Your task to perform on an android device: What is the recent news? Image 0: 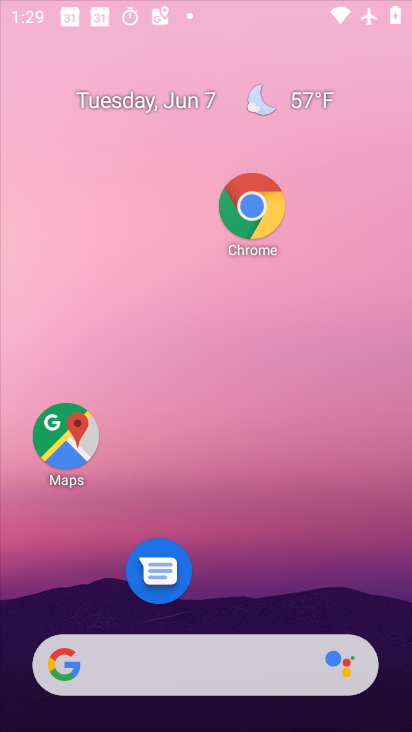
Step 0: click (193, 237)
Your task to perform on an android device: What is the recent news? Image 1: 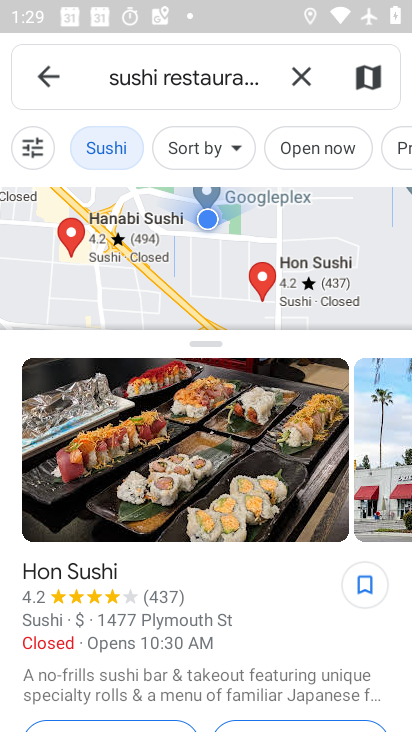
Step 1: click (303, 70)
Your task to perform on an android device: What is the recent news? Image 2: 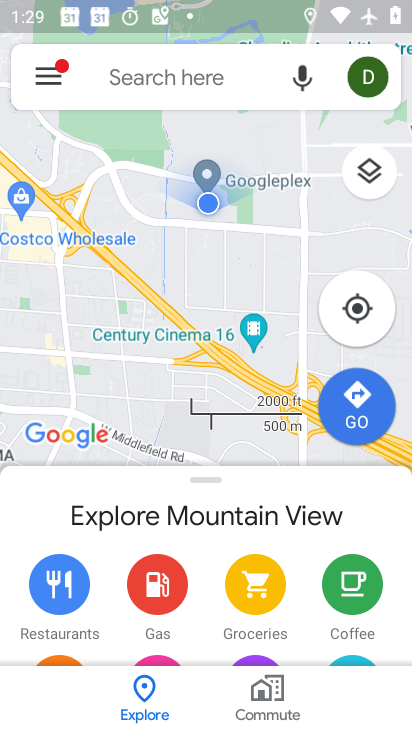
Step 2: click (204, 75)
Your task to perform on an android device: What is the recent news? Image 3: 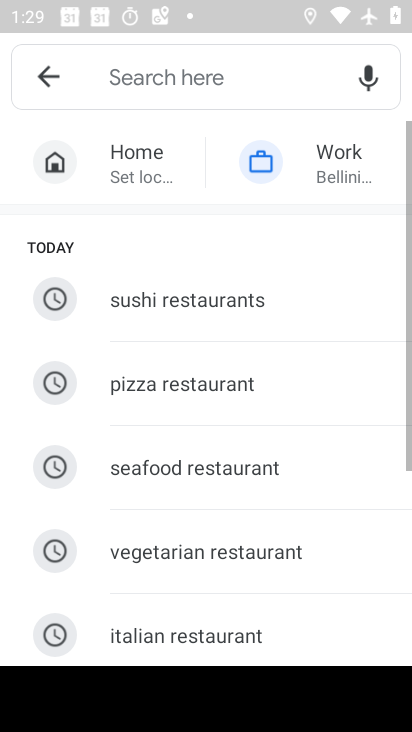
Step 3: drag from (201, 582) to (200, 262)
Your task to perform on an android device: What is the recent news? Image 4: 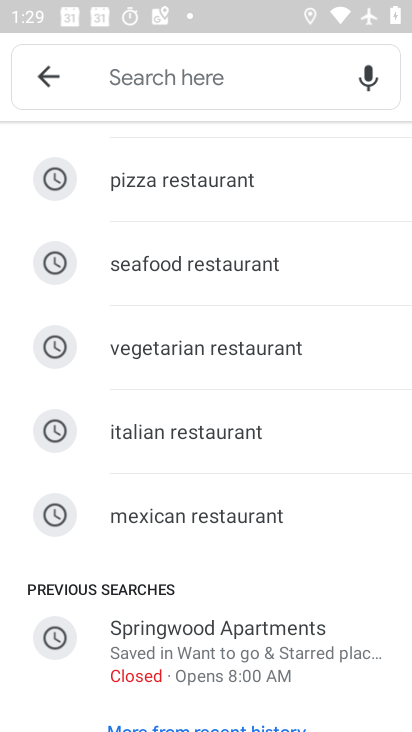
Step 4: drag from (181, 522) to (196, 232)
Your task to perform on an android device: What is the recent news? Image 5: 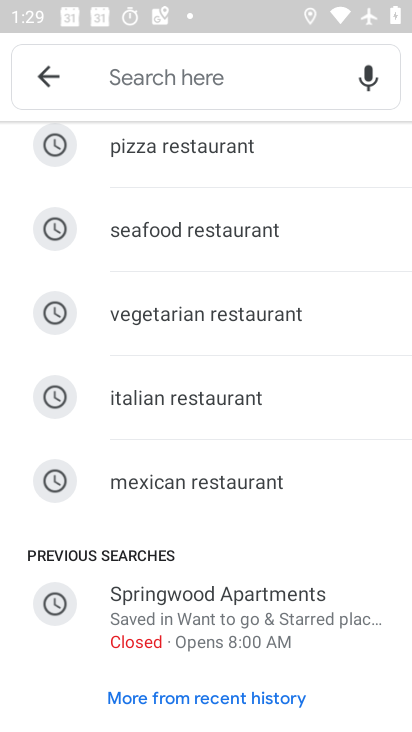
Step 5: click (144, 75)
Your task to perform on an android device: What is the recent news? Image 6: 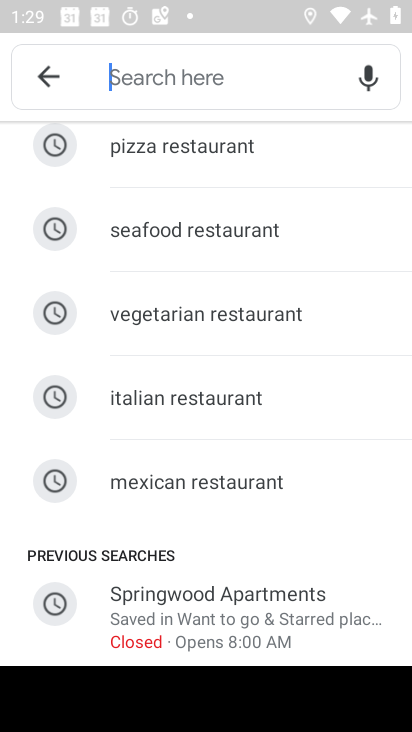
Step 6: type "news"
Your task to perform on an android device: What is the recent news? Image 7: 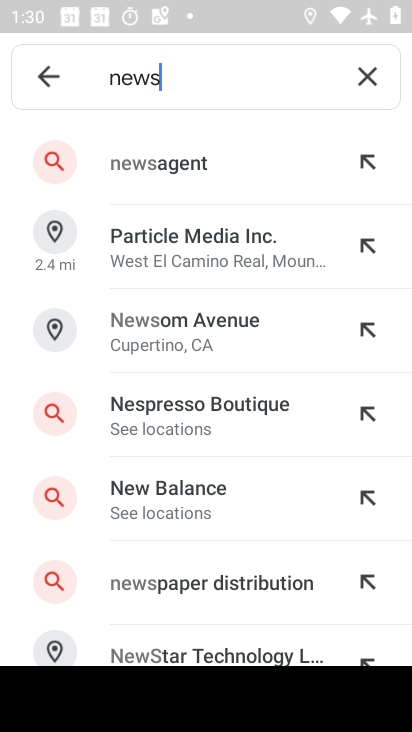
Step 7: drag from (215, 501) to (232, 416)
Your task to perform on an android device: What is the recent news? Image 8: 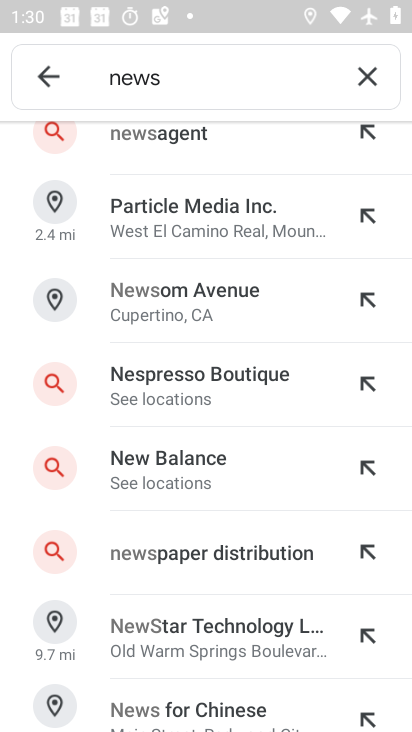
Step 8: click (195, 83)
Your task to perform on an android device: What is the recent news? Image 9: 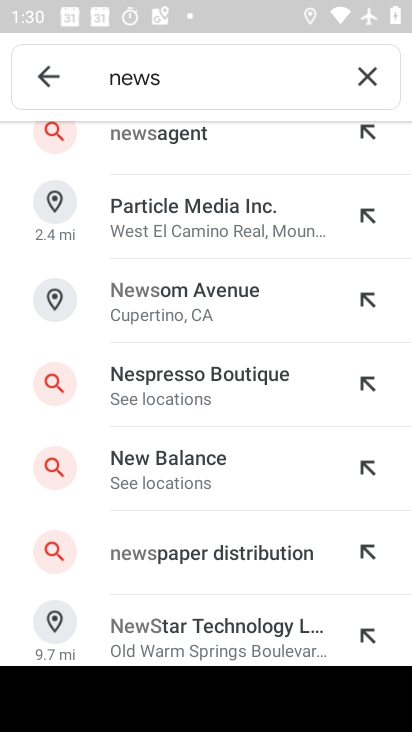
Step 9: click (200, 91)
Your task to perform on an android device: What is the recent news? Image 10: 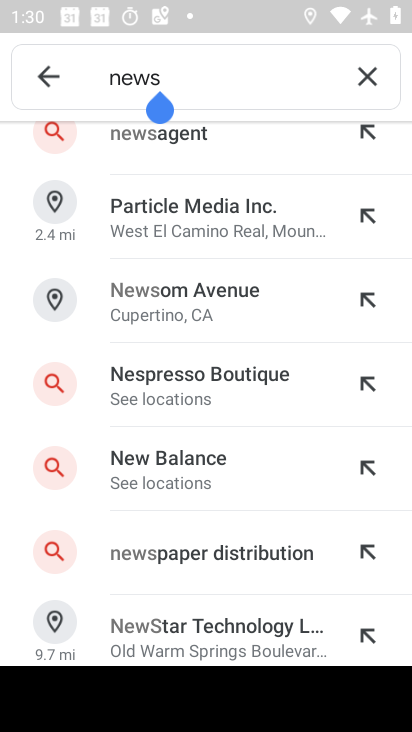
Step 10: drag from (181, 241) to (192, 482)
Your task to perform on an android device: What is the recent news? Image 11: 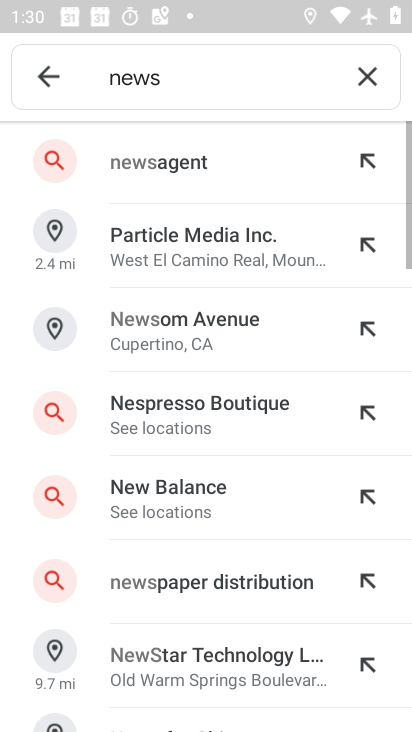
Step 11: drag from (192, 206) to (218, 404)
Your task to perform on an android device: What is the recent news? Image 12: 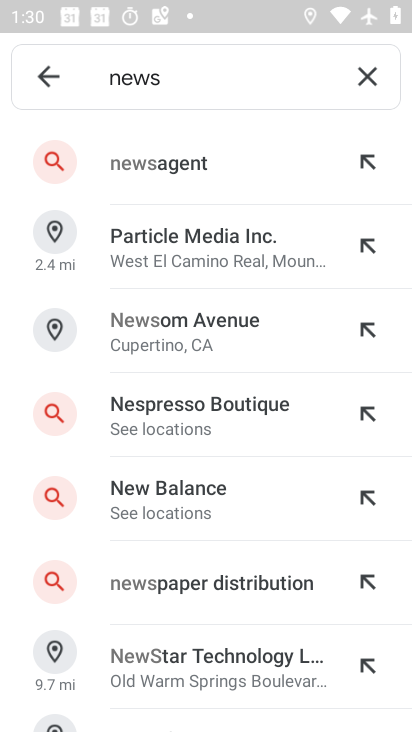
Step 12: click (187, 74)
Your task to perform on an android device: What is the recent news? Image 13: 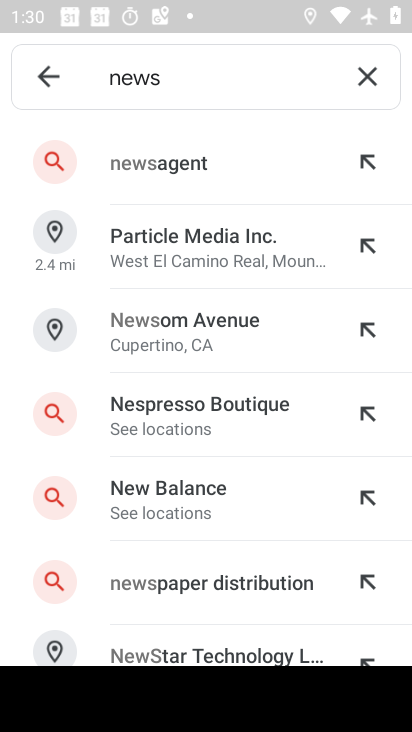
Step 13: click (191, 75)
Your task to perform on an android device: What is the recent news? Image 14: 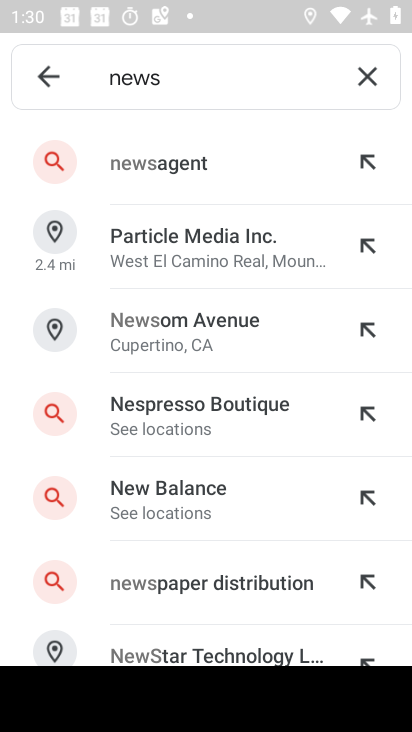
Step 14: drag from (174, 580) to (175, 189)
Your task to perform on an android device: What is the recent news? Image 15: 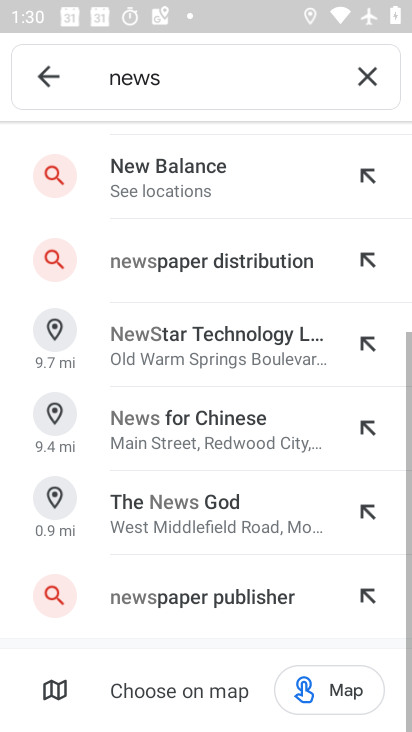
Step 15: click (57, 79)
Your task to perform on an android device: What is the recent news? Image 16: 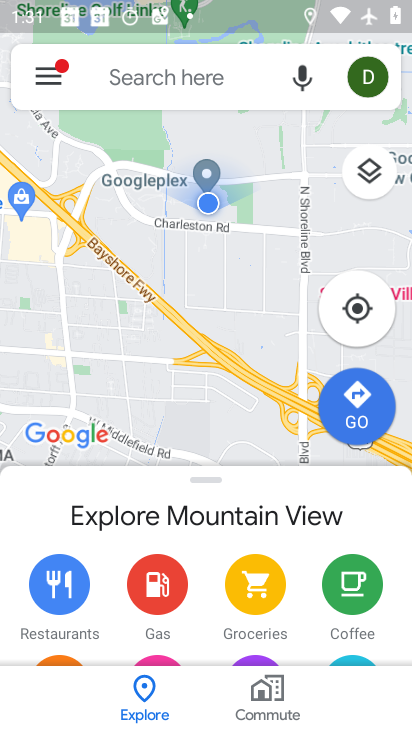
Step 16: press home button
Your task to perform on an android device: What is the recent news? Image 17: 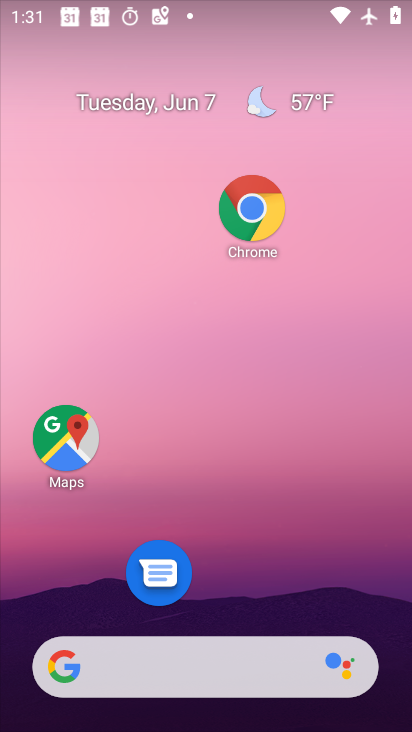
Step 17: drag from (228, 585) to (179, 115)
Your task to perform on an android device: What is the recent news? Image 18: 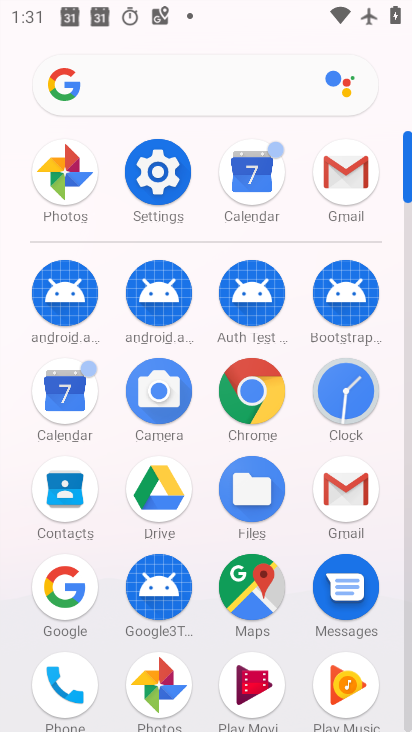
Step 18: click (38, 602)
Your task to perform on an android device: What is the recent news? Image 19: 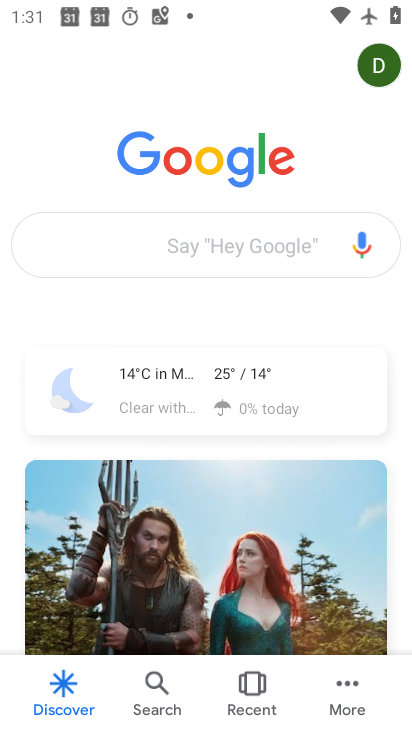
Step 19: click (196, 248)
Your task to perform on an android device: What is the recent news? Image 20: 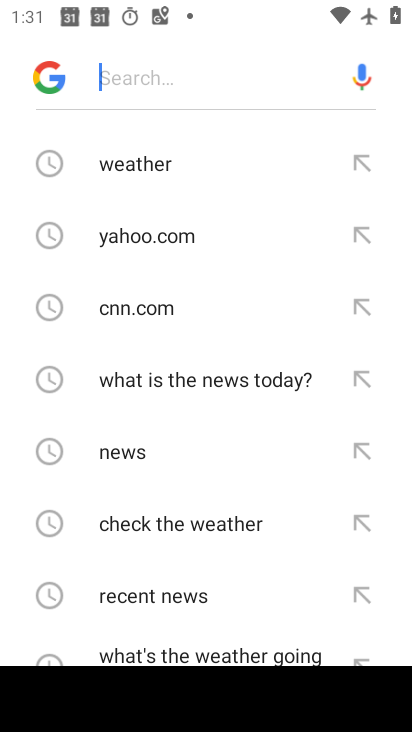
Step 20: click (154, 452)
Your task to perform on an android device: What is the recent news? Image 21: 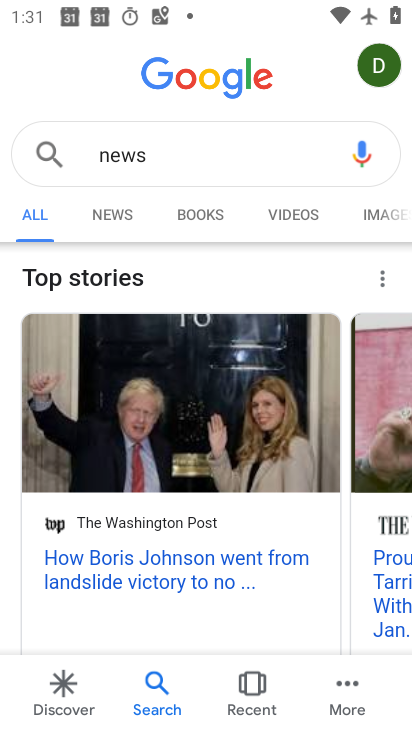
Step 21: click (119, 213)
Your task to perform on an android device: What is the recent news? Image 22: 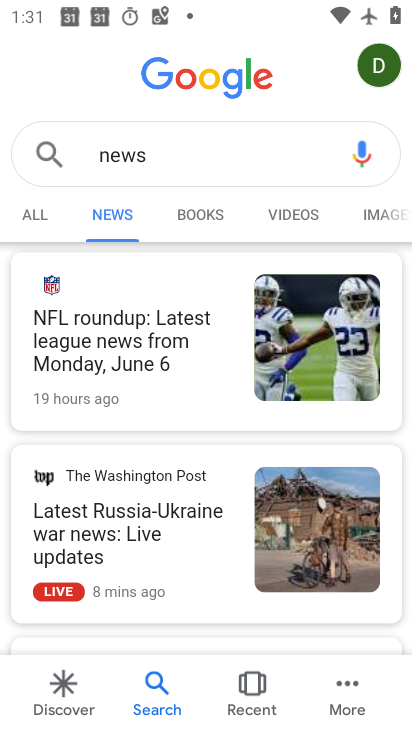
Step 22: task complete